Your task to perform on an android device: Show me popular videos on Youtube Image 0: 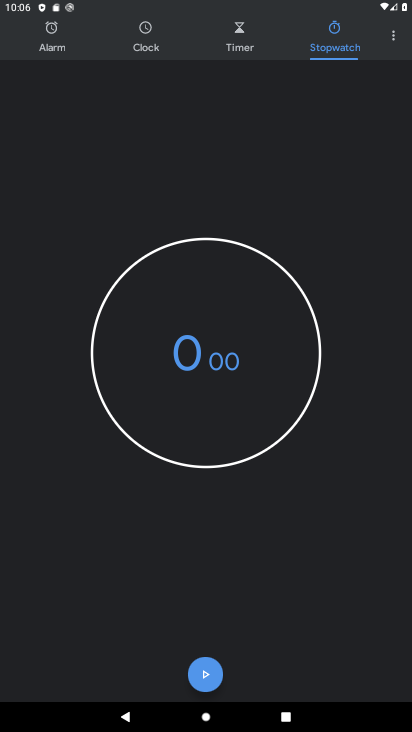
Step 0: press home button
Your task to perform on an android device: Show me popular videos on Youtube Image 1: 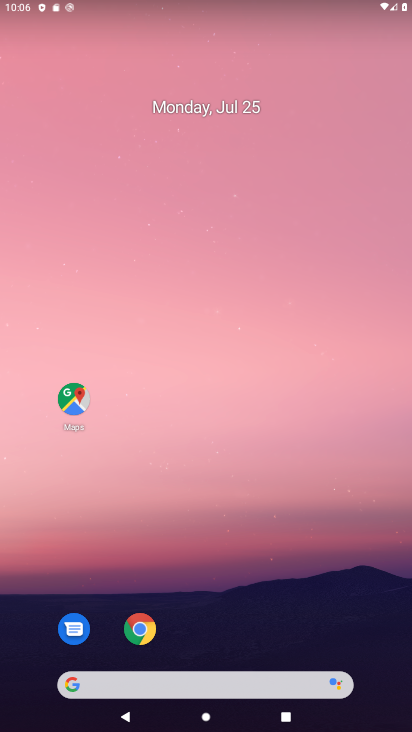
Step 1: drag from (269, 645) to (267, 2)
Your task to perform on an android device: Show me popular videos on Youtube Image 2: 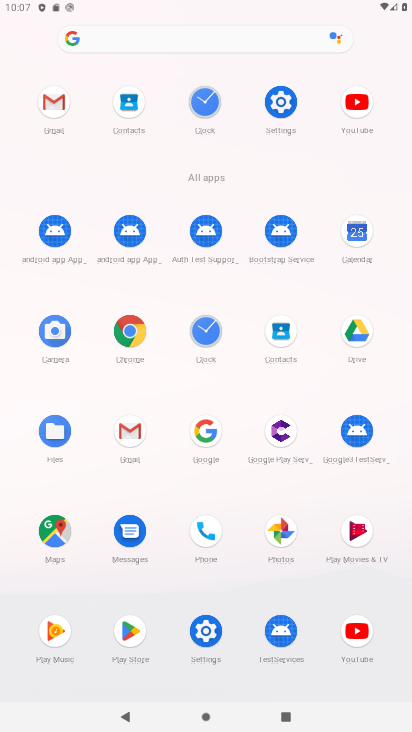
Step 2: click (357, 105)
Your task to perform on an android device: Show me popular videos on Youtube Image 3: 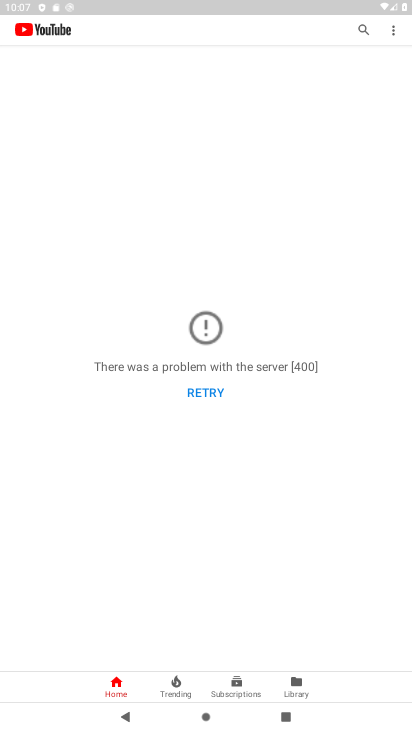
Step 3: click (208, 392)
Your task to perform on an android device: Show me popular videos on Youtube Image 4: 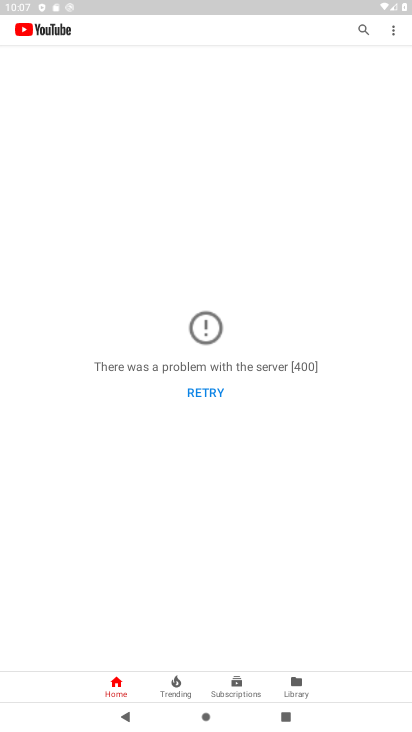
Step 4: click (119, 690)
Your task to perform on an android device: Show me popular videos on Youtube Image 5: 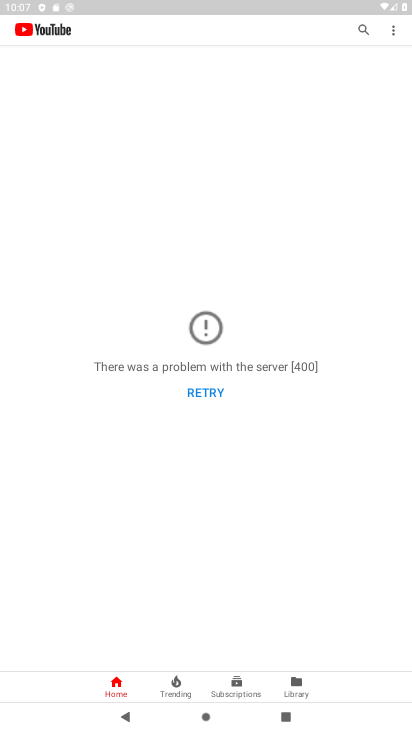
Step 5: click (173, 697)
Your task to perform on an android device: Show me popular videos on Youtube Image 6: 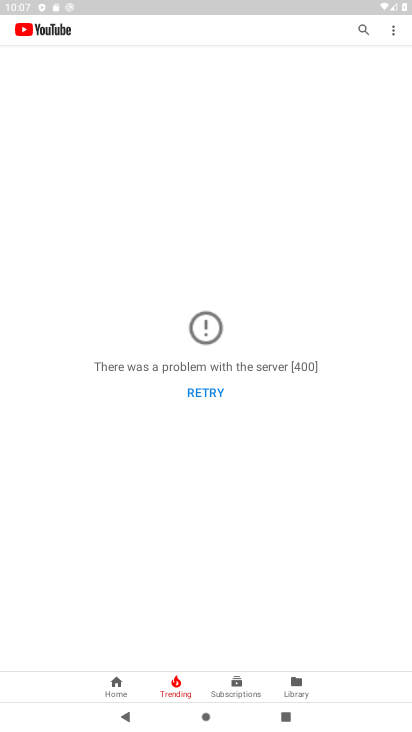
Step 6: task complete